Your task to perform on an android device: How do I get to the nearest Starbucks? Image 0: 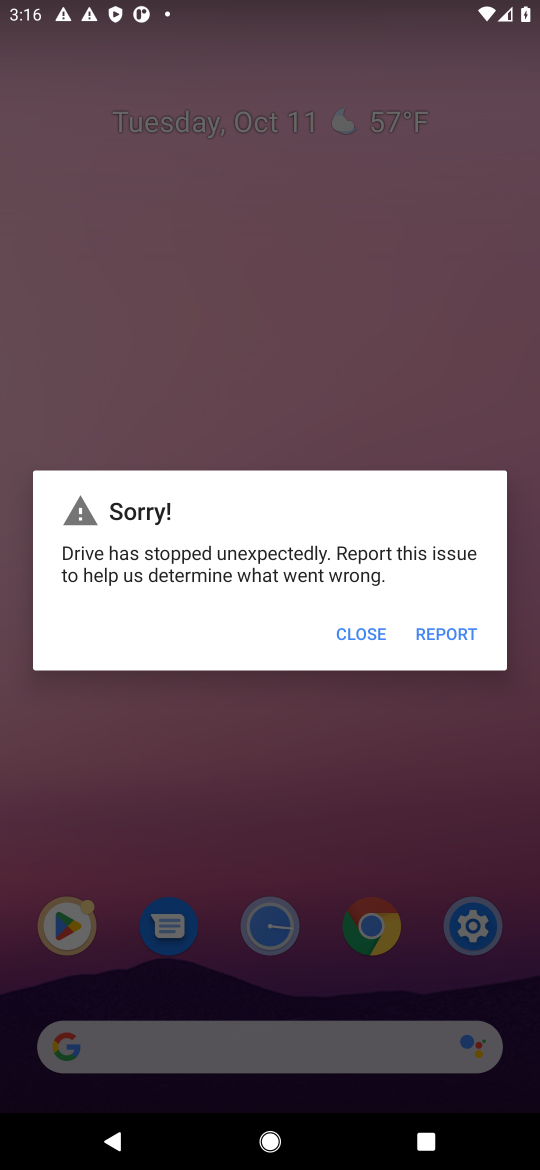
Step 0: click (364, 634)
Your task to perform on an android device: How do I get to the nearest Starbucks? Image 1: 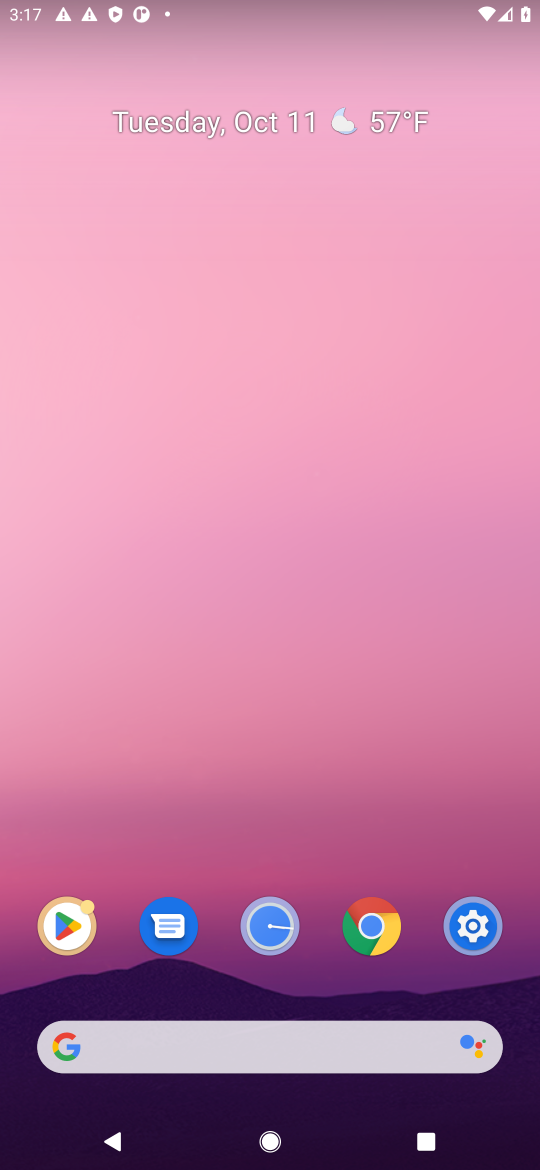
Step 1: click (228, 1049)
Your task to perform on an android device: How do I get to the nearest Starbucks? Image 2: 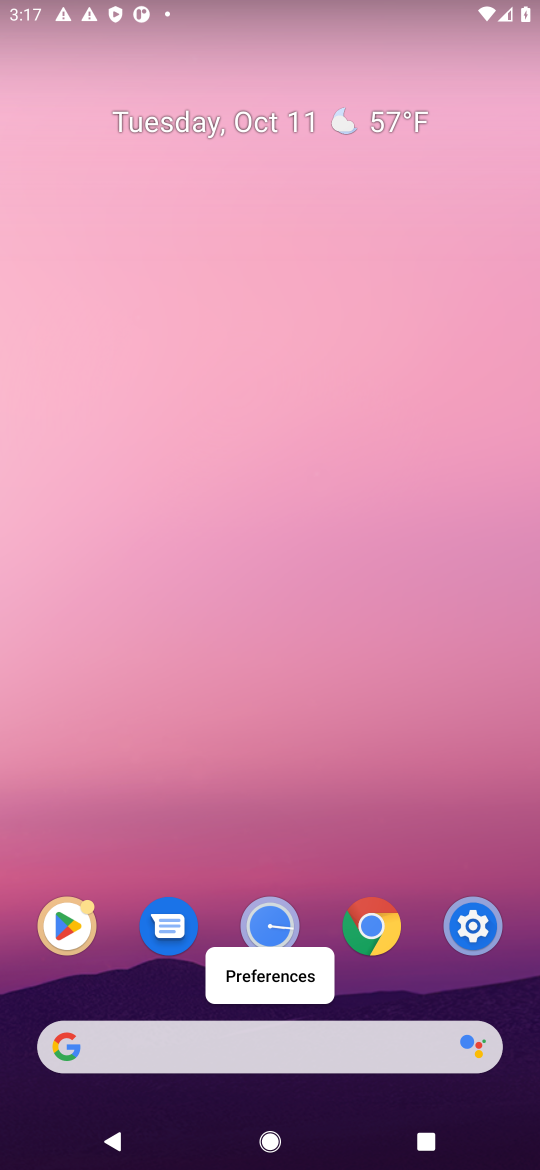
Step 2: click (228, 1049)
Your task to perform on an android device: How do I get to the nearest Starbucks? Image 3: 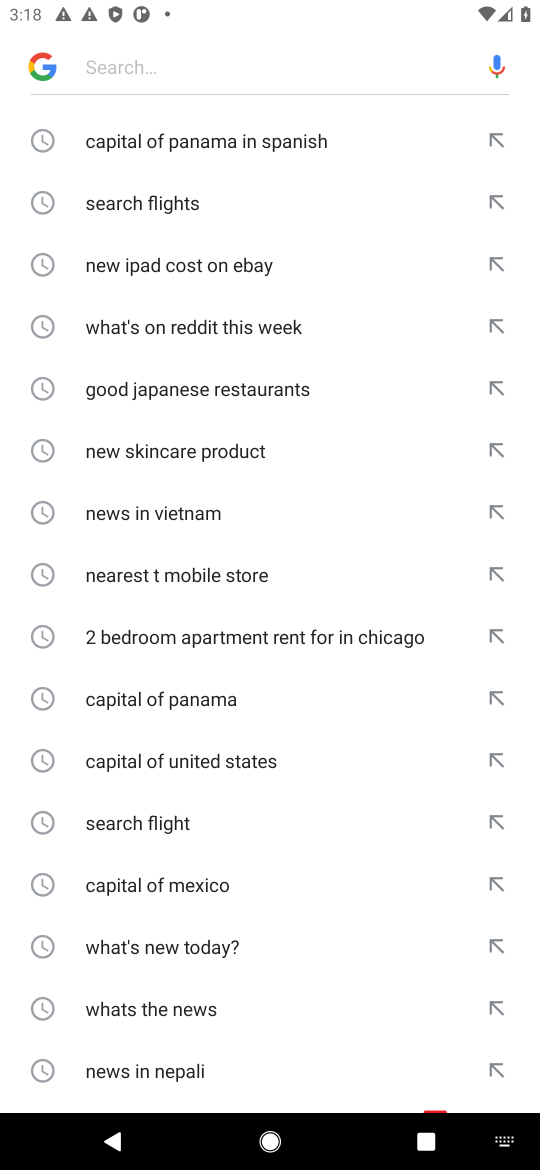
Step 3: type "get to the nearest Starbucks"
Your task to perform on an android device: How do I get to the nearest Starbucks? Image 4: 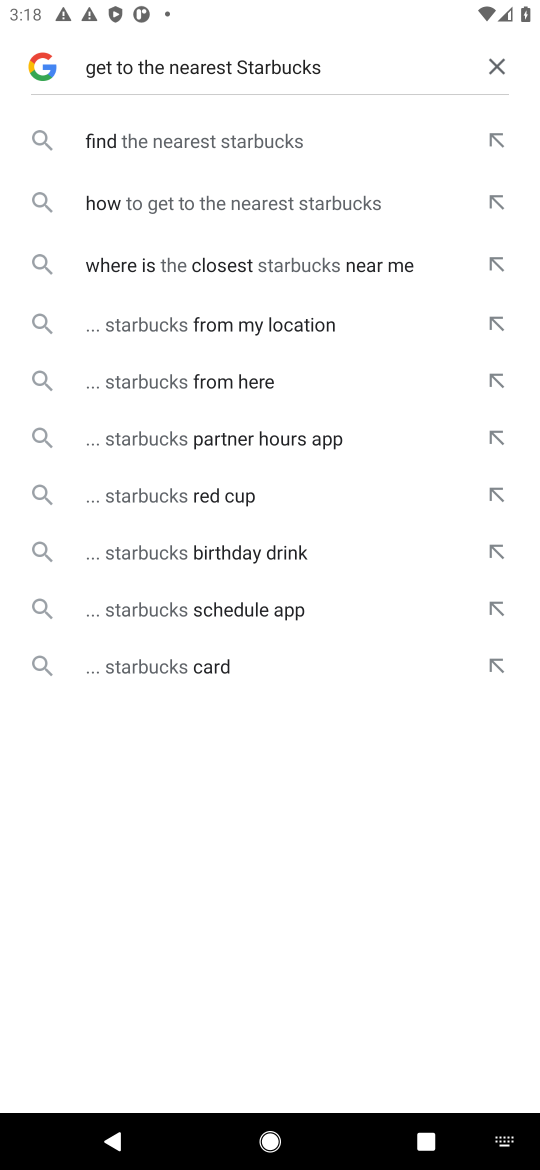
Step 4: type ""
Your task to perform on an android device: How do I get to the nearest Starbucks? Image 5: 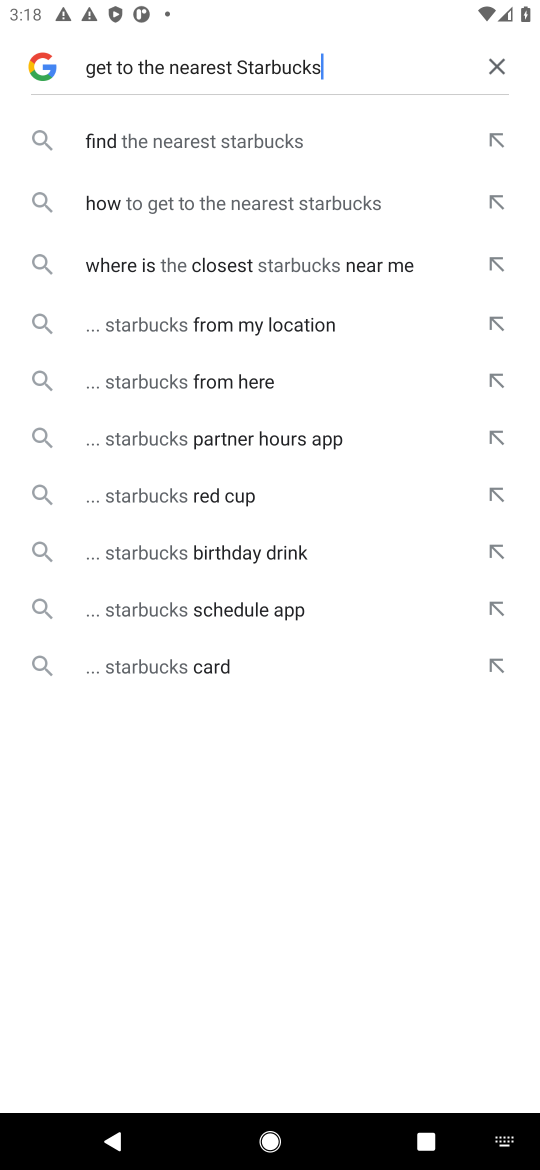
Step 5: click (242, 210)
Your task to perform on an android device: How do I get to the nearest Starbucks? Image 6: 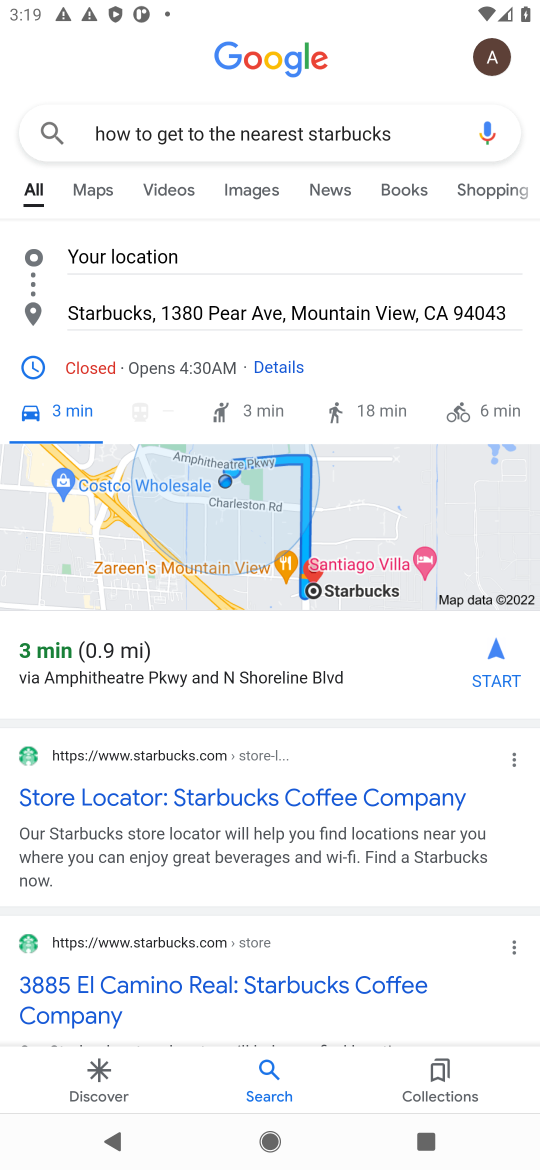
Step 6: task complete